Your task to perform on an android device: Show me popular games on the Play Store Image 0: 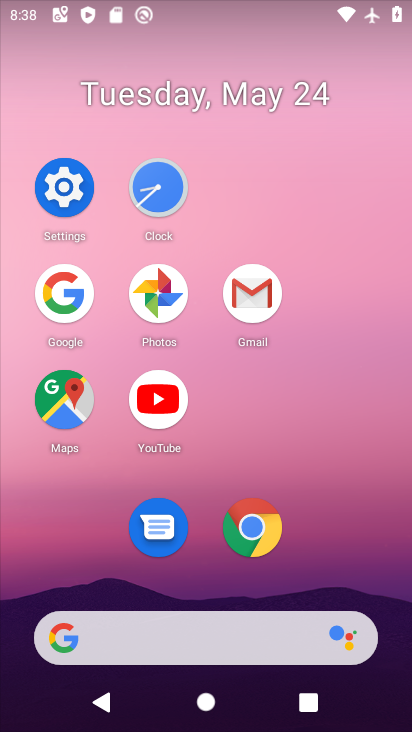
Step 0: drag from (320, 432) to (336, 195)
Your task to perform on an android device: Show me popular games on the Play Store Image 1: 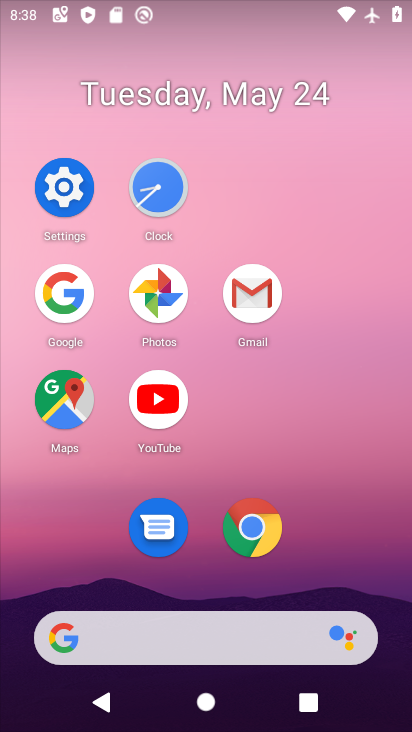
Step 1: drag from (336, 553) to (335, 72)
Your task to perform on an android device: Show me popular games on the Play Store Image 2: 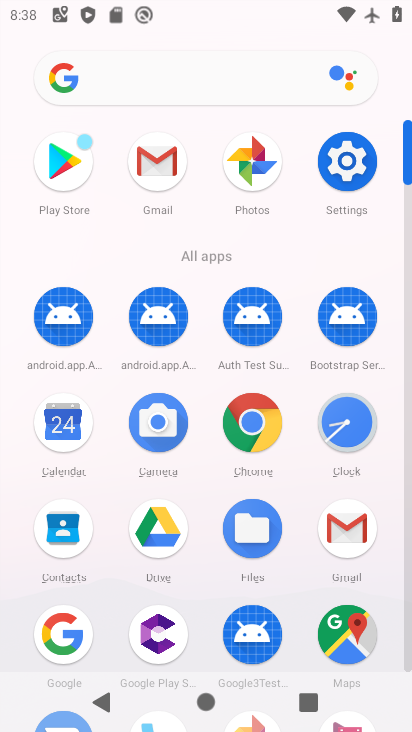
Step 2: click (59, 161)
Your task to perform on an android device: Show me popular games on the Play Store Image 3: 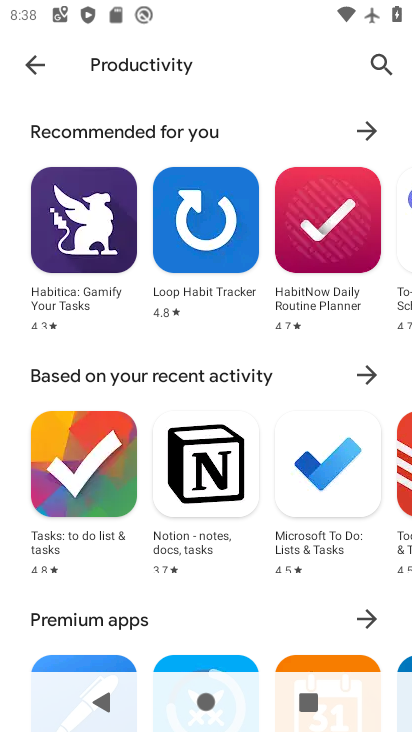
Step 3: click (34, 51)
Your task to perform on an android device: Show me popular games on the Play Store Image 4: 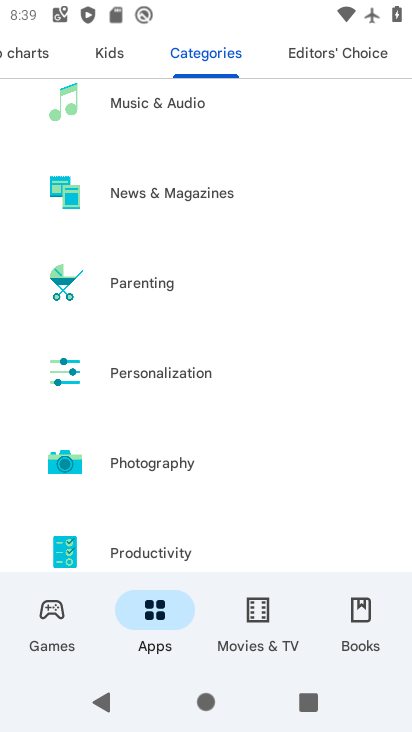
Step 4: click (71, 634)
Your task to perform on an android device: Show me popular games on the Play Store Image 5: 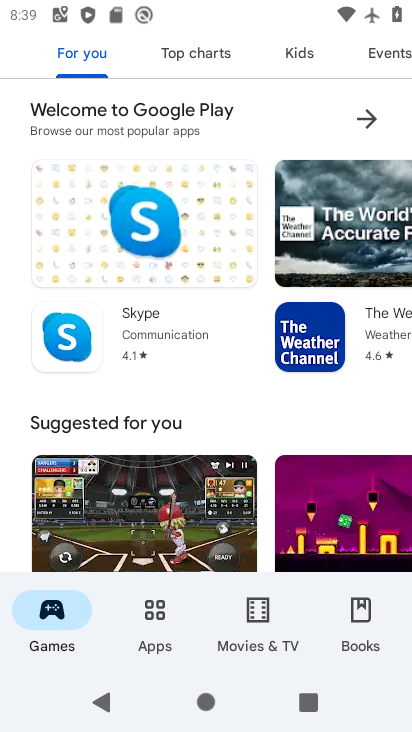
Step 5: drag from (250, 445) to (287, 161)
Your task to perform on an android device: Show me popular games on the Play Store Image 6: 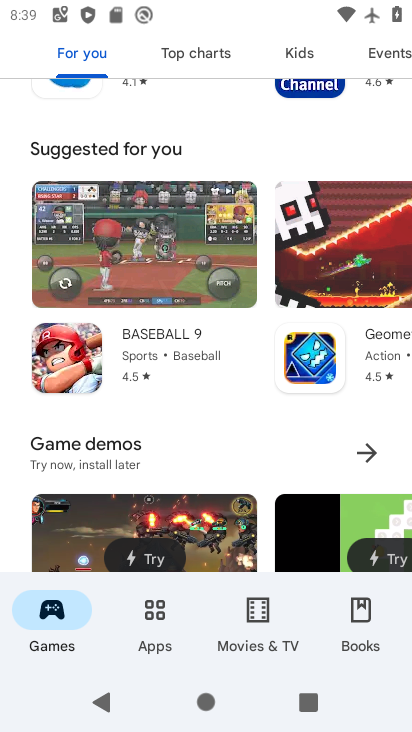
Step 6: drag from (249, 455) to (229, 152)
Your task to perform on an android device: Show me popular games on the Play Store Image 7: 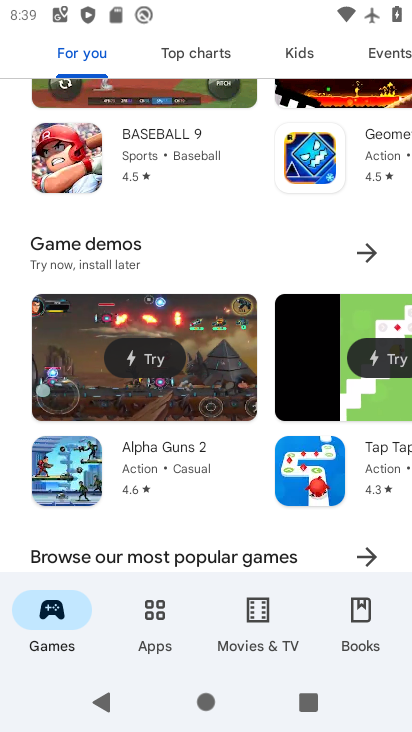
Step 7: drag from (263, 351) to (276, 213)
Your task to perform on an android device: Show me popular games on the Play Store Image 8: 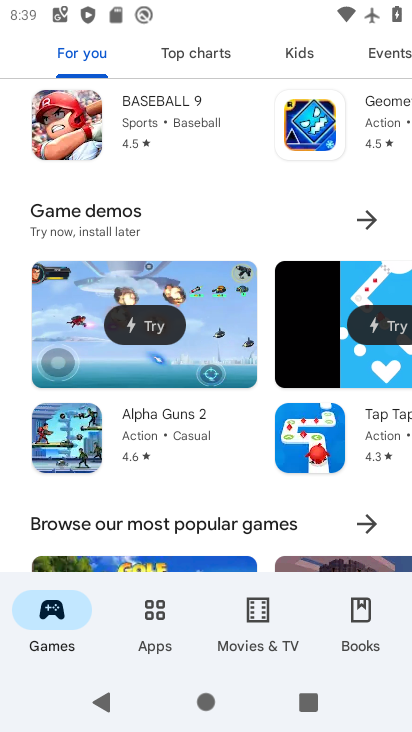
Step 8: click (341, 524)
Your task to perform on an android device: Show me popular games on the Play Store Image 9: 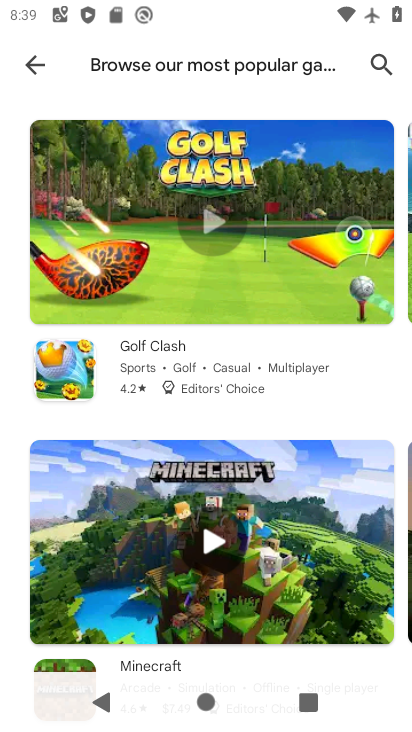
Step 9: task complete